Your task to perform on an android device: set default search engine in the chrome app Image 0: 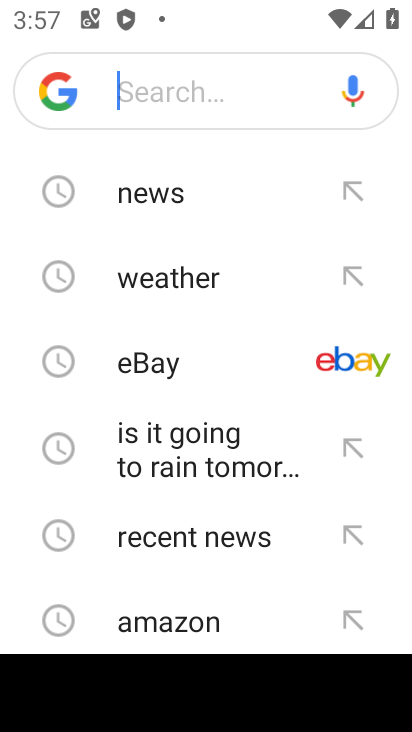
Step 0: press home button
Your task to perform on an android device: set default search engine in the chrome app Image 1: 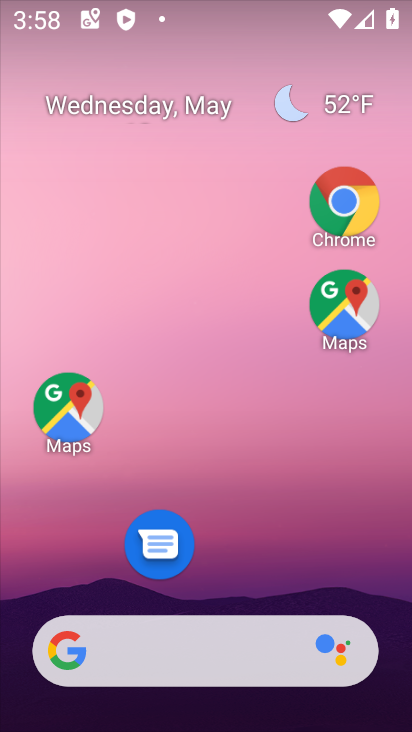
Step 1: click (334, 245)
Your task to perform on an android device: set default search engine in the chrome app Image 2: 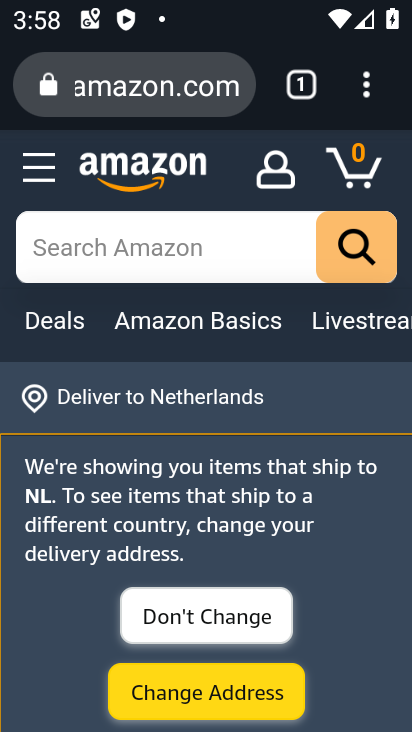
Step 2: click (355, 80)
Your task to perform on an android device: set default search engine in the chrome app Image 3: 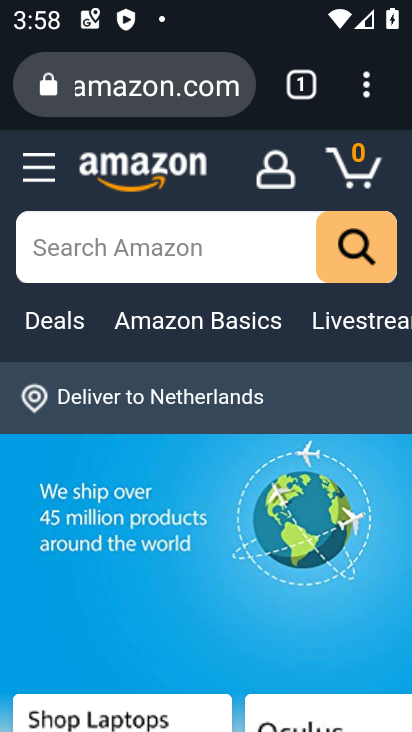
Step 3: click (360, 83)
Your task to perform on an android device: set default search engine in the chrome app Image 4: 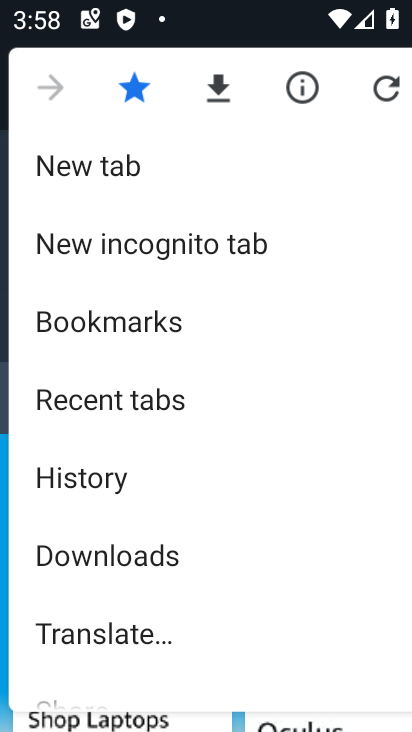
Step 4: click (101, 119)
Your task to perform on an android device: set default search engine in the chrome app Image 5: 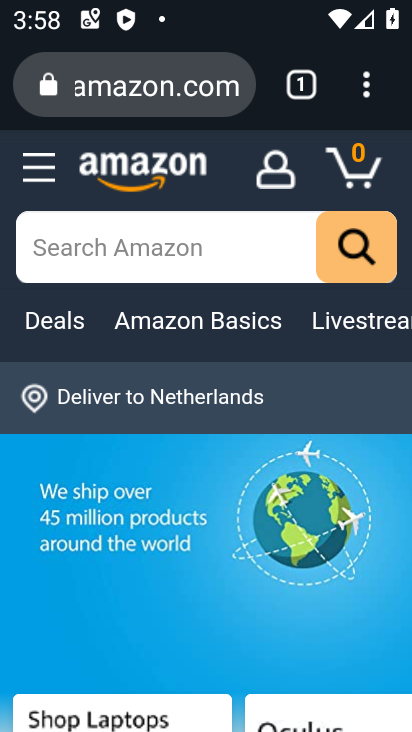
Step 5: click (366, 89)
Your task to perform on an android device: set default search engine in the chrome app Image 6: 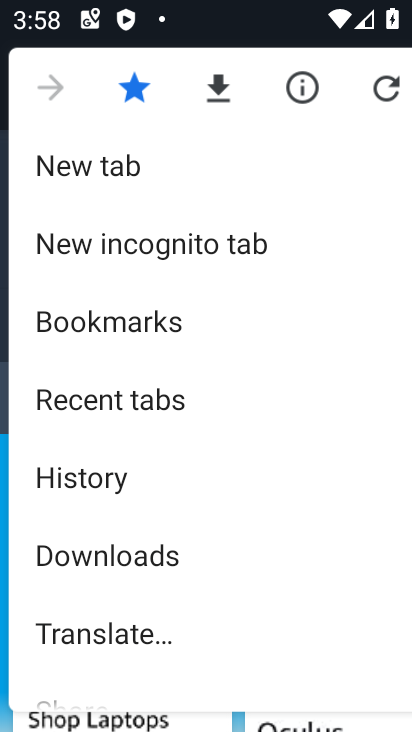
Step 6: drag from (189, 605) to (195, 293)
Your task to perform on an android device: set default search engine in the chrome app Image 7: 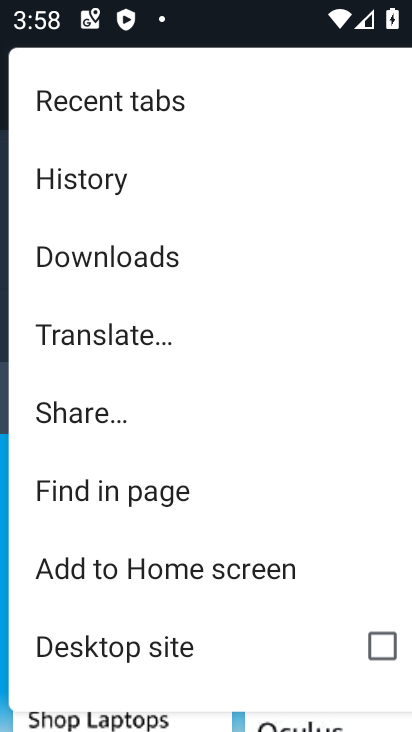
Step 7: drag from (136, 651) to (136, 408)
Your task to perform on an android device: set default search engine in the chrome app Image 8: 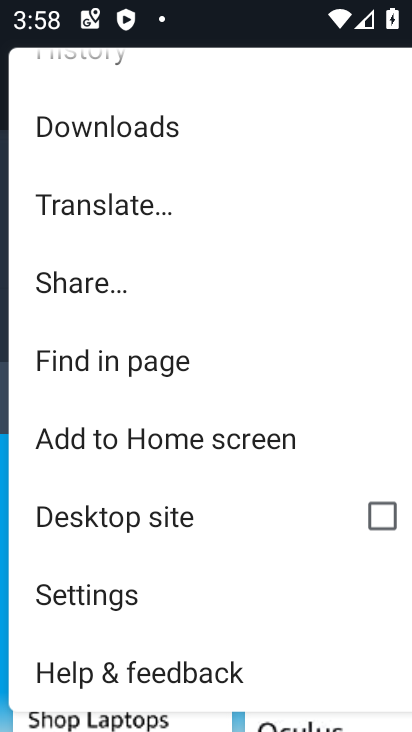
Step 8: click (101, 611)
Your task to perform on an android device: set default search engine in the chrome app Image 9: 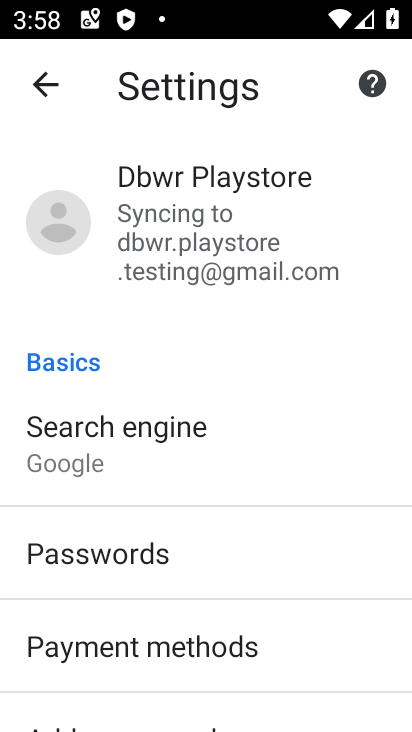
Step 9: click (119, 488)
Your task to perform on an android device: set default search engine in the chrome app Image 10: 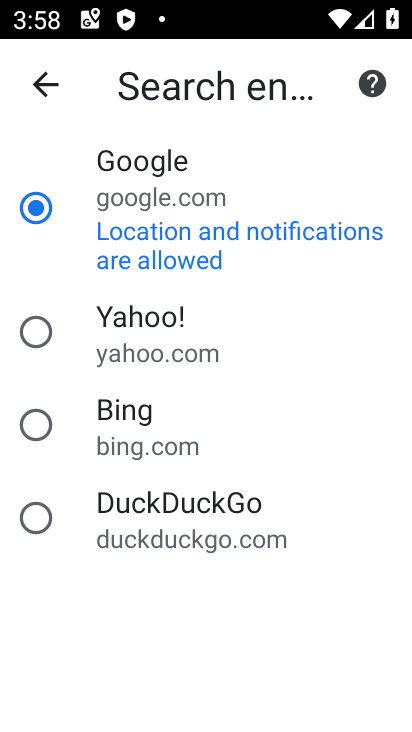
Step 10: click (52, 409)
Your task to perform on an android device: set default search engine in the chrome app Image 11: 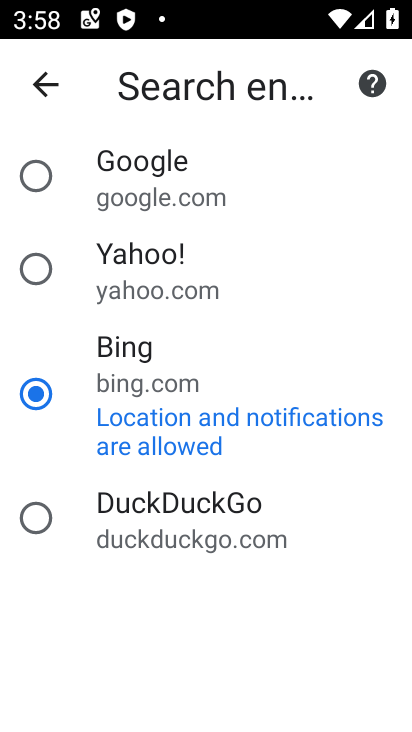
Step 11: click (41, 426)
Your task to perform on an android device: set default search engine in the chrome app Image 12: 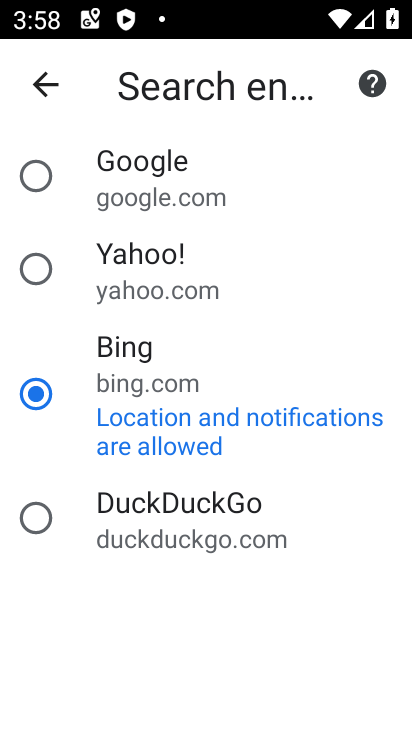
Step 12: task complete